Your task to perform on an android device: turn off location history Image 0: 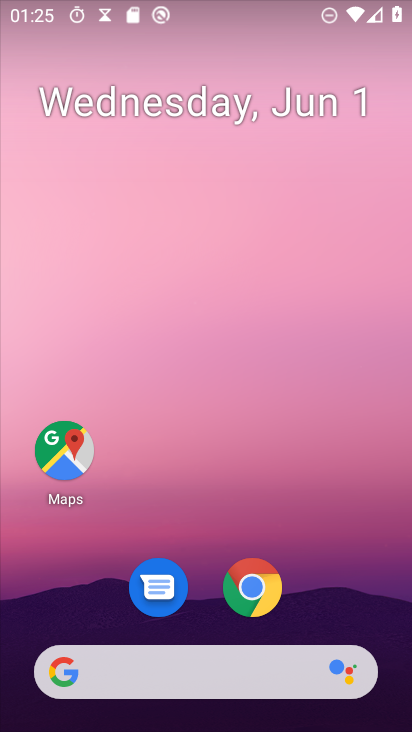
Step 0: drag from (327, 606) to (321, 39)
Your task to perform on an android device: turn off location history Image 1: 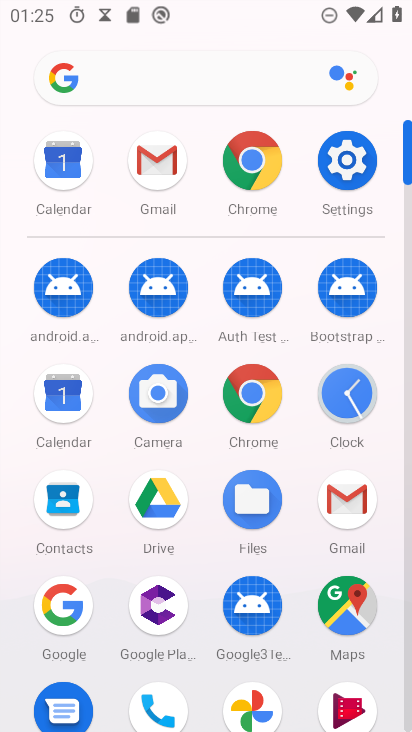
Step 1: click (340, 148)
Your task to perform on an android device: turn off location history Image 2: 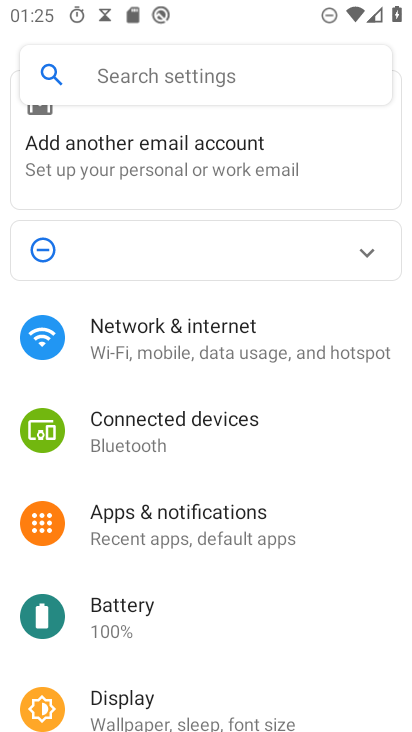
Step 2: drag from (177, 552) to (191, 130)
Your task to perform on an android device: turn off location history Image 3: 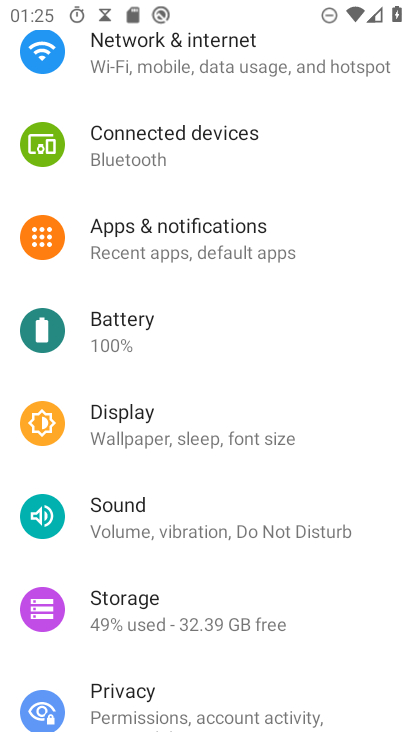
Step 3: drag from (114, 665) to (174, 164)
Your task to perform on an android device: turn off location history Image 4: 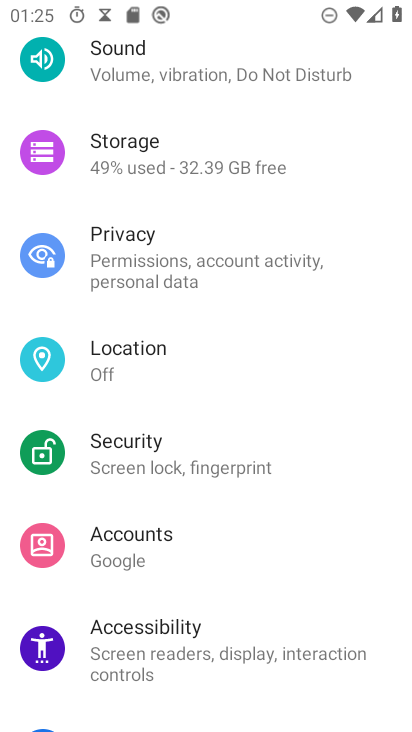
Step 4: click (123, 346)
Your task to perform on an android device: turn off location history Image 5: 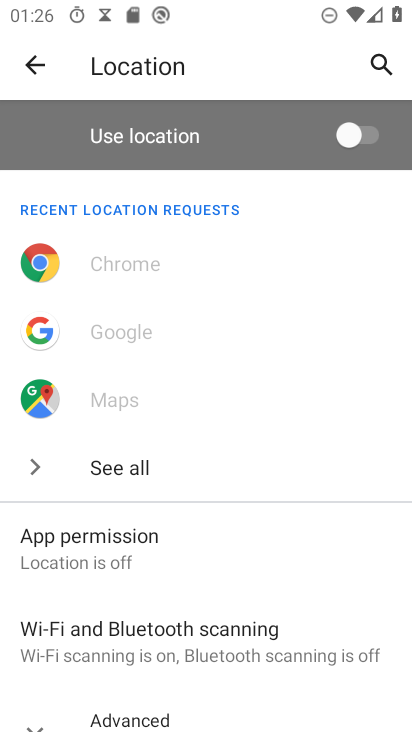
Step 5: drag from (154, 639) to (194, 201)
Your task to perform on an android device: turn off location history Image 6: 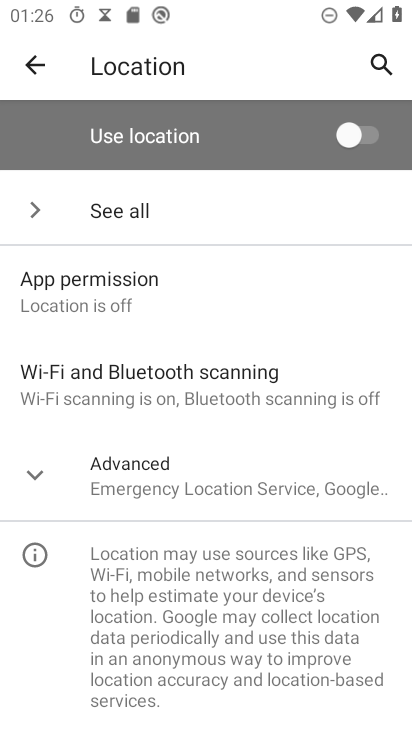
Step 6: click (163, 488)
Your task to perform on an android device: turn off location history Image 7: 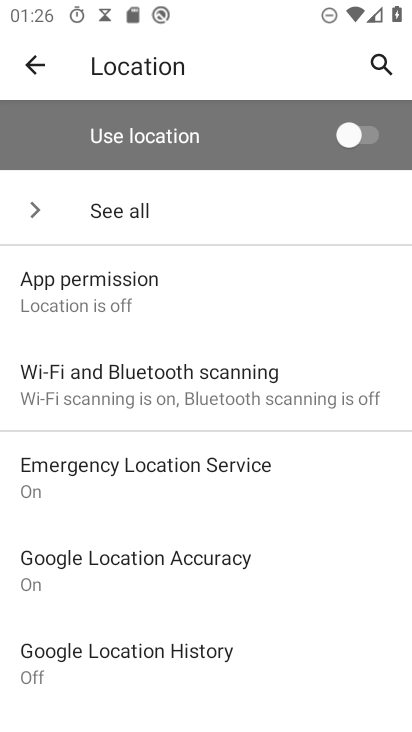
Step 7: click (177, 634)
Your task to perform on an android device: turn off location history Image 8: 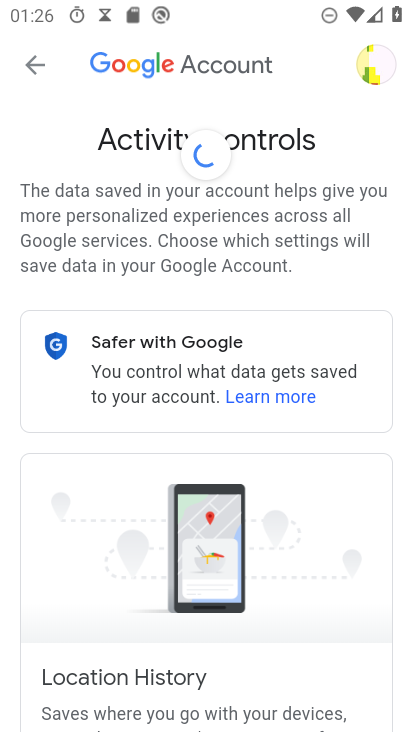
Step 8: drag from (219, 579) to (220, 169)
Your task to perform on an android device: turn off location history Image 9: 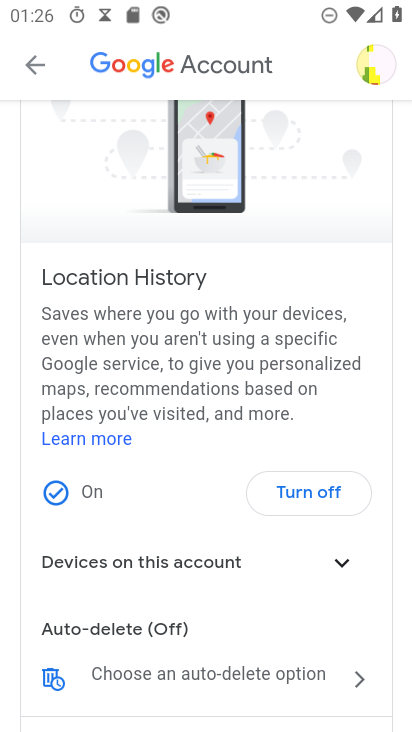
Step 9: click (324, 503)
Your task to perform on an android device: turn off location history Image 10: 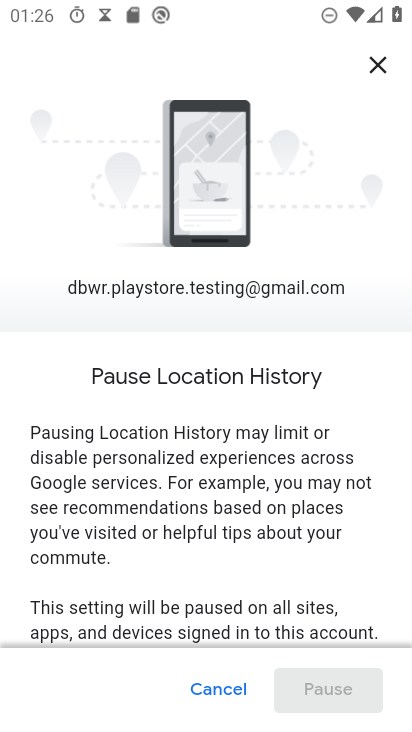
Step 10: drag from (262, 560) to (258, 2)
Your task to perform on an android device: turn off location history Image 11: 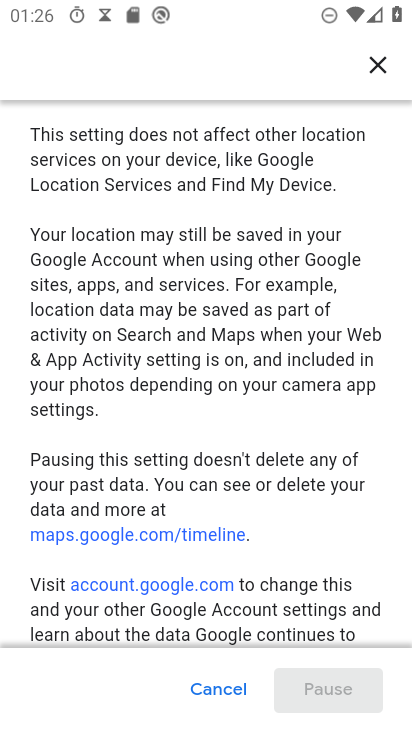
Step 11: drag from (251, 582) to (288, 128)
Your task to perform on an android device: turn off location history Image 12: 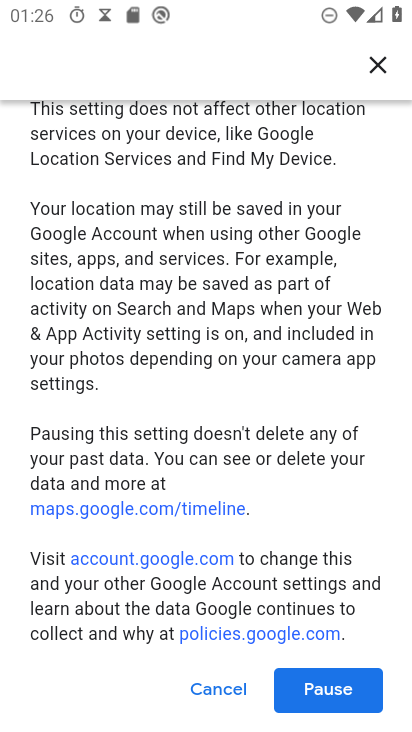
Step 12: click (306, 676)
Your task to perform on an android device: turn off location history Image 13: 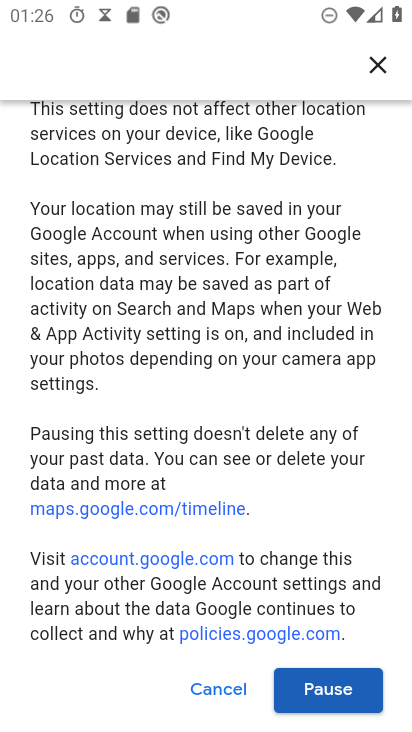
Step 13: click (303, 676)
Your task to perform on an android device: turn off location history Image 14: 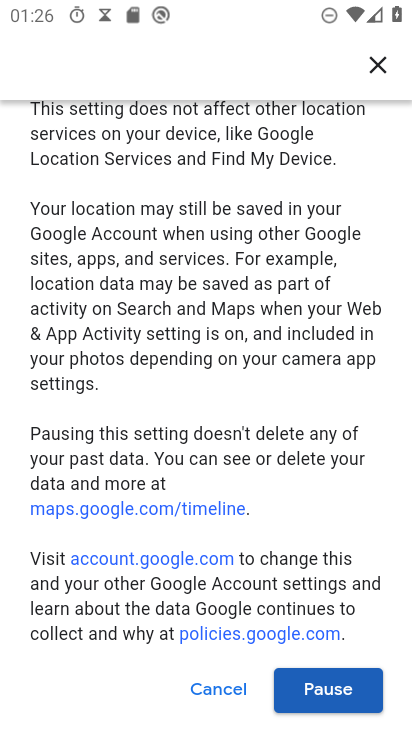
Step 14: click (287, 700)
Your task to perform on an android device: turn off location history Image 15: 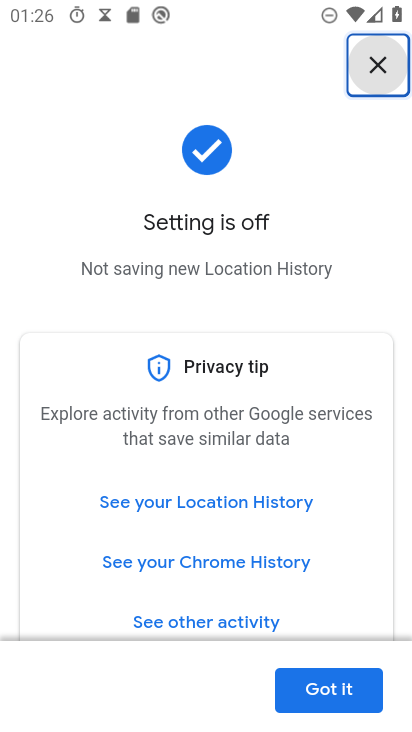
Step 15: task complete